Your task to perform on an android device: manage bookmarks in the chrome app Image 0: 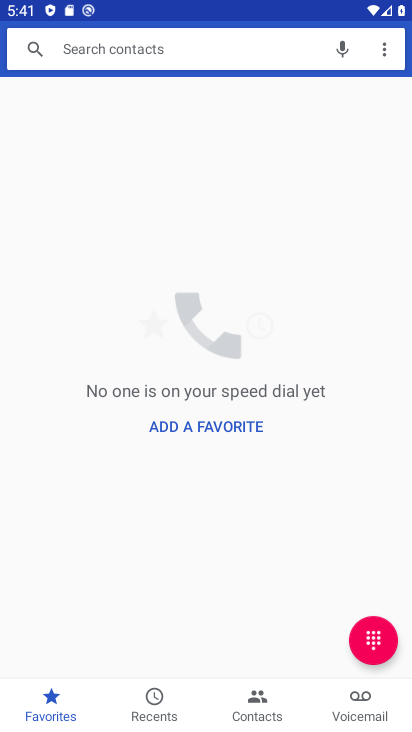
Step 0: press back button
Your task to perform on an android device: manage bookmarks in the chrome app Image 1: 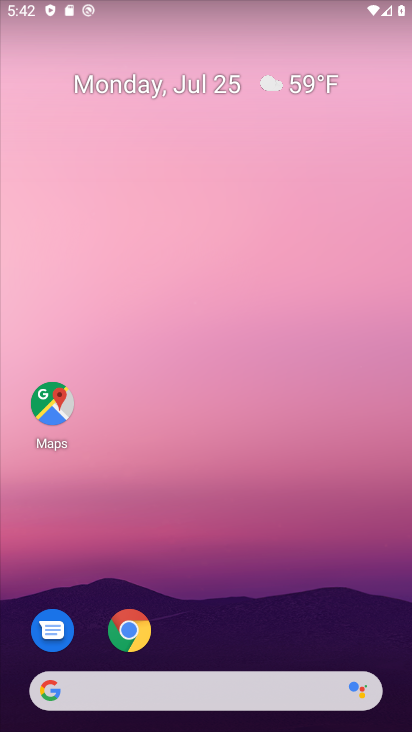
Step 1: drag from (180, 523) to (166, 134)
Your task to perform on an android device: manage bookmarks in the chrome app Image 2: 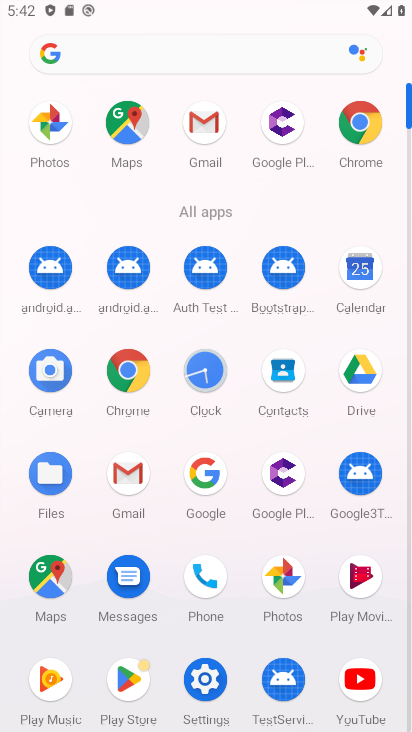
Step 2: click (357, 158)
Your task to perform on an android device: manage bookmarks in the chrome app Image 3: 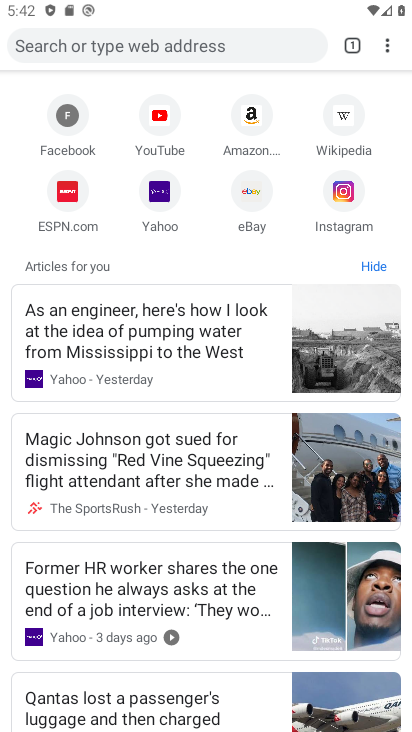
Step 3: click (386, 43)
Your task to perform on an android device: manage bookmarks in the chrome app Image 4: 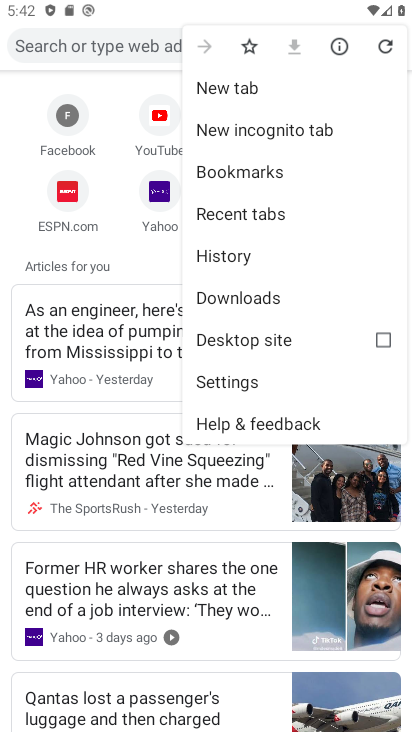
Step 4: click (237, 165)
Your task to perform on an android device: manage bookmarks in the chrome app Image 5: 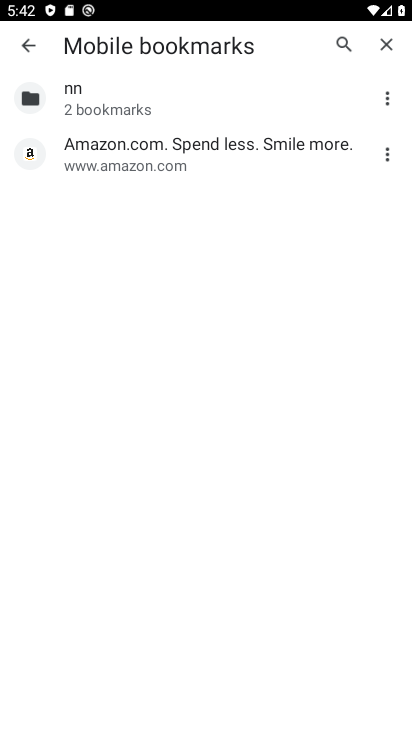
Step 5: click (381, 96)
Your task to perform on an android device: manage bookmarks in the chrome app Image 6: 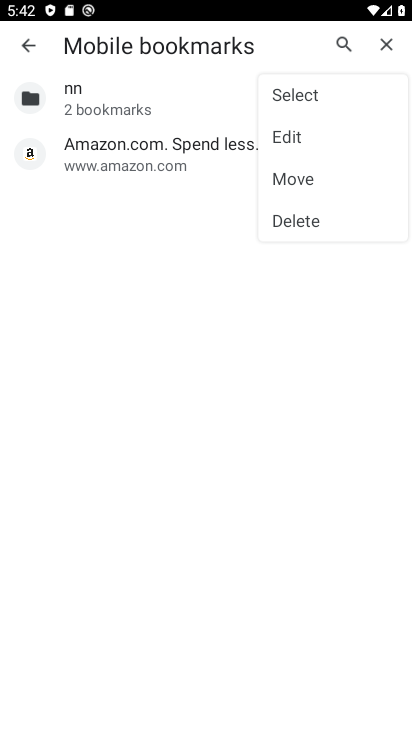
Step 6: click (320, 216)
Your task to perform on an android device: manage bookmarks in the chrome app Image 7: 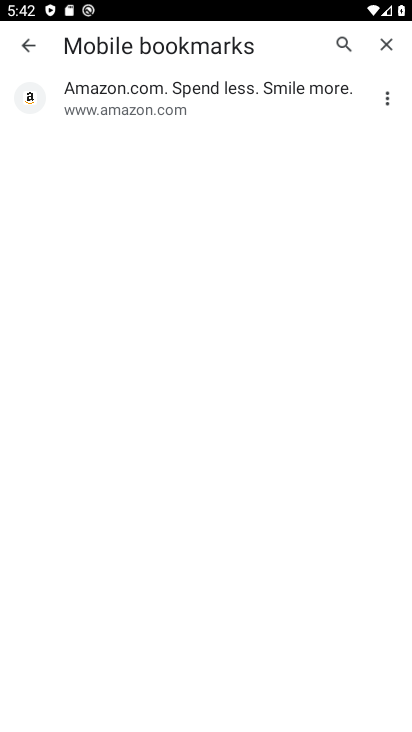
Step 7: task complete